Your task to perform on an android device: turn on location history Image 0: 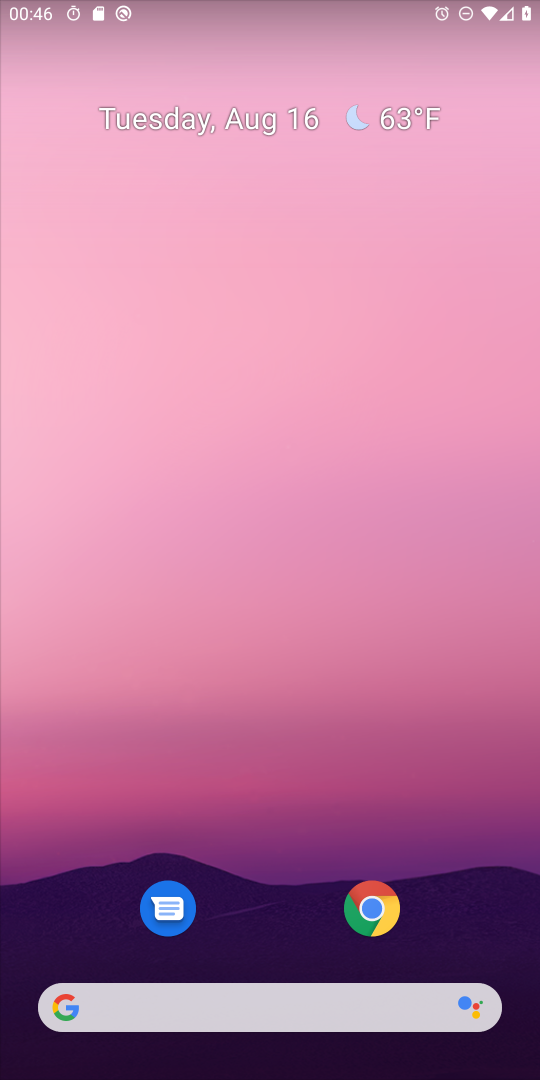
Step 0: drag from (277, 929) to (281, 110)
Your task to perform on an android device: turn on location history Image 1: 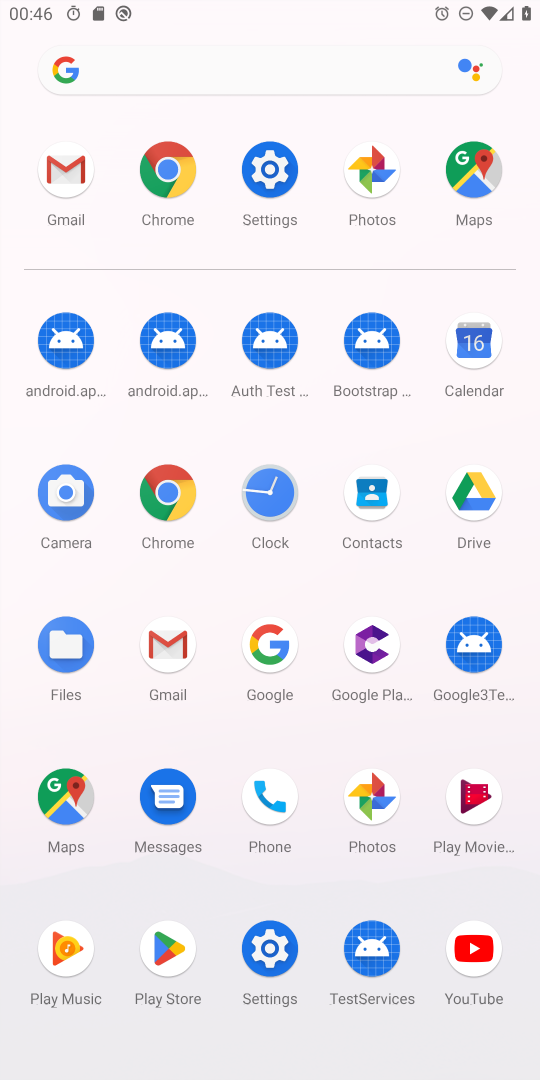
Step 1: click (287, 167)
Your task to perform on an android device: turn on location history Image 2: 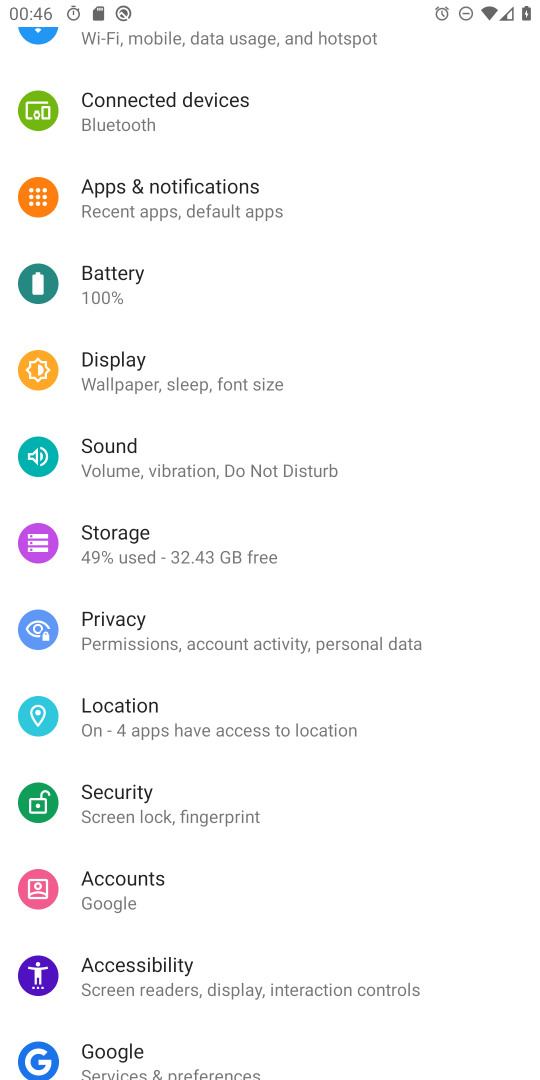
Step 2: click (143, 693)
Your task to perform on an android device: turn on location history Image 3: 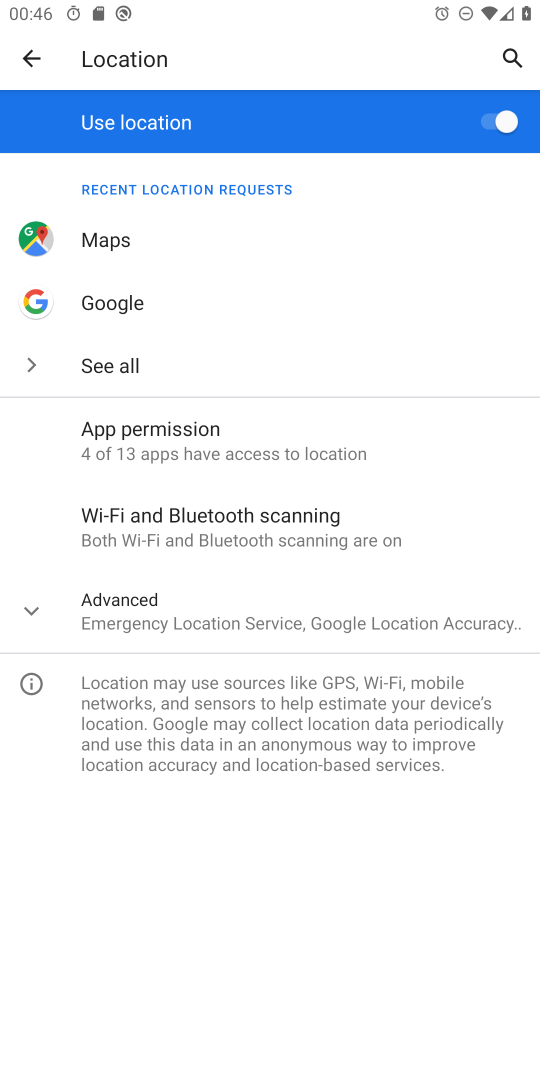
Step 3: click (140, 617)
Your task to perform on an android device: turn on location history Image 4: 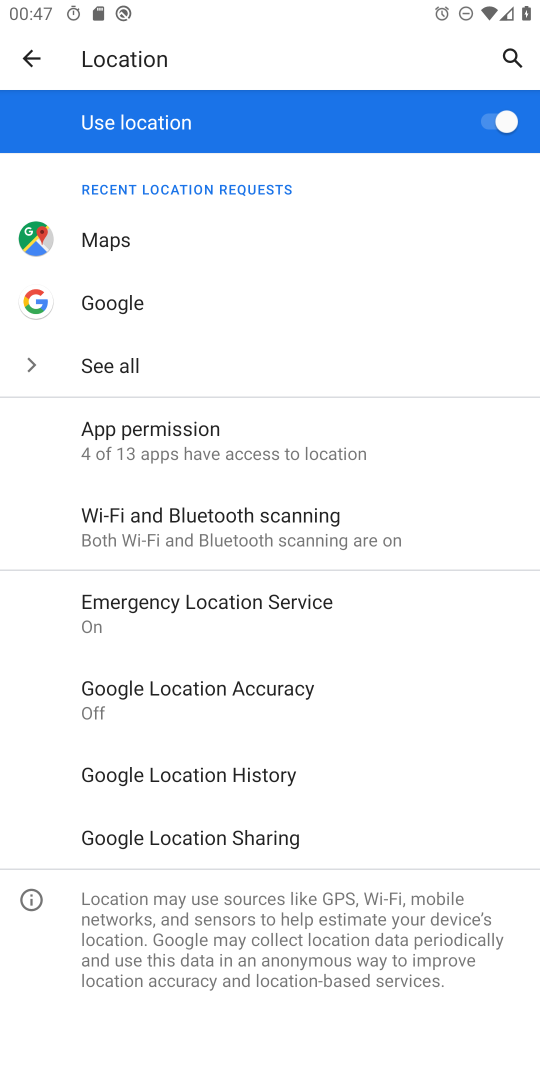
Step 4: click (228, 782)
Your task to perform on an android device: turn on location history Image 5: 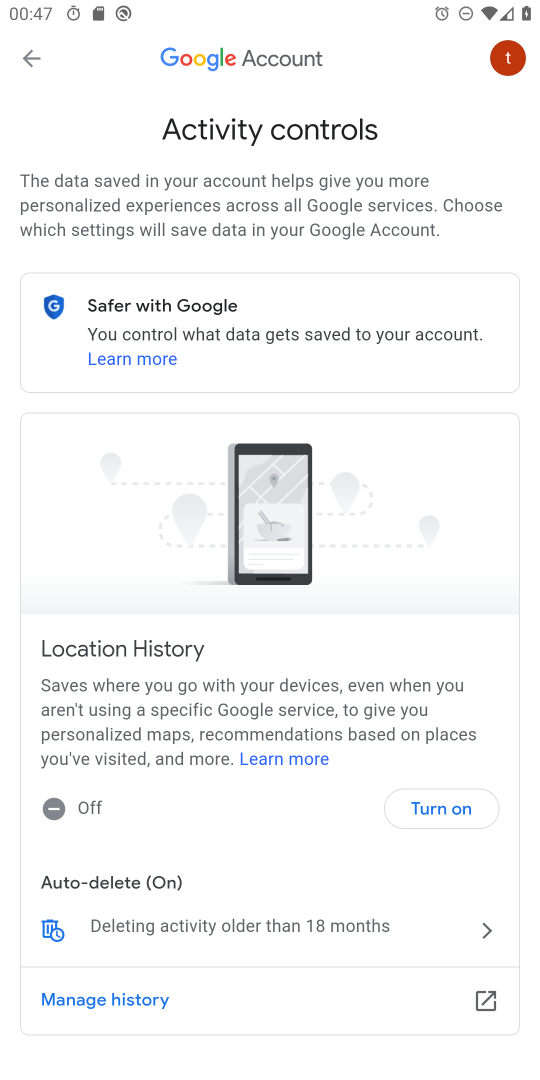
Step 5: click (458, 780)
Your task to perform on an android device: turn on location history Image 6: 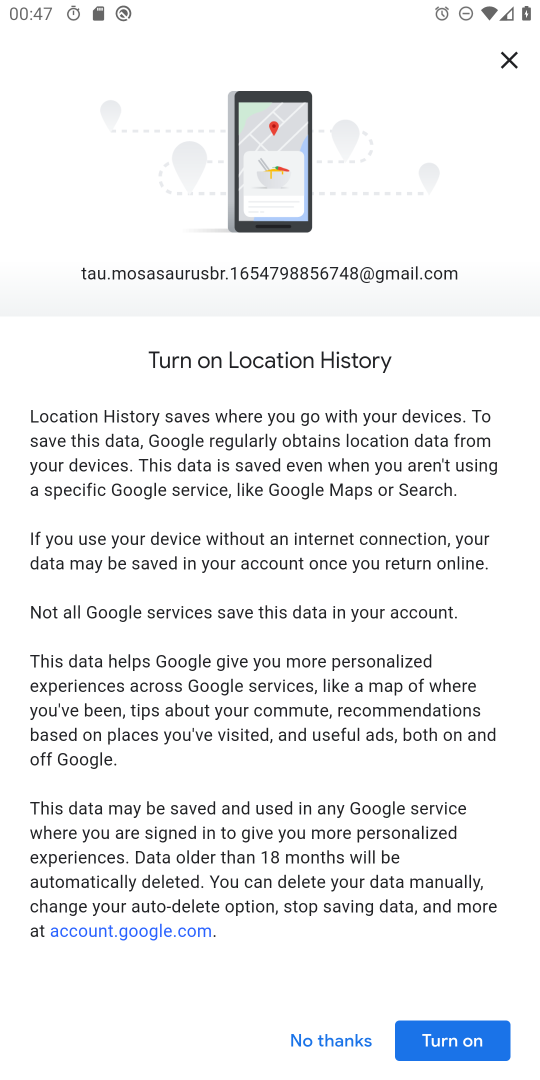
Step 6: click (439, 743)
Your task to perform on an android device: turn on location history Image 7: 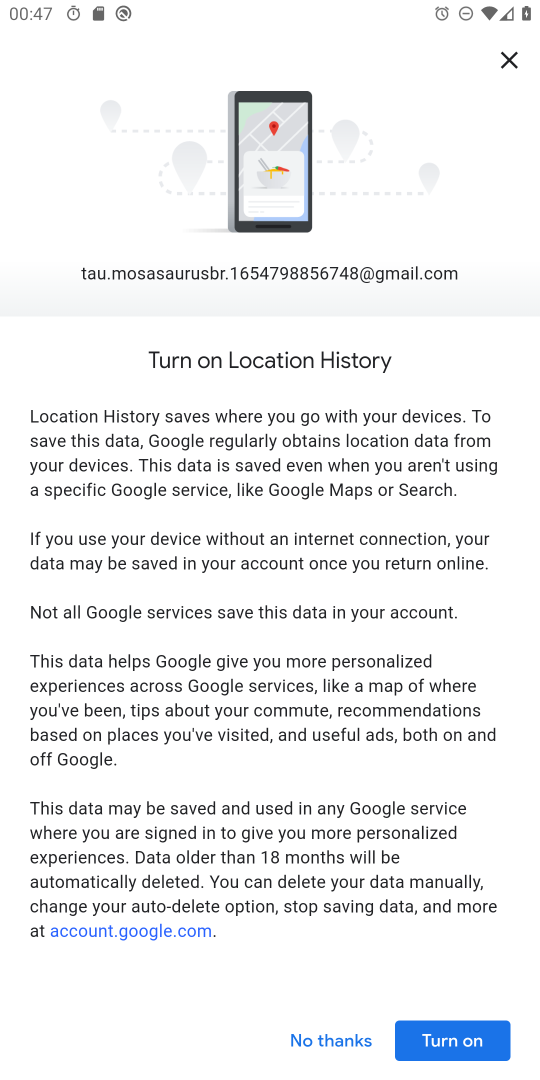
Step 7: click (470, 1039)
Your task to perform on an android device: turn on location history Image 8: 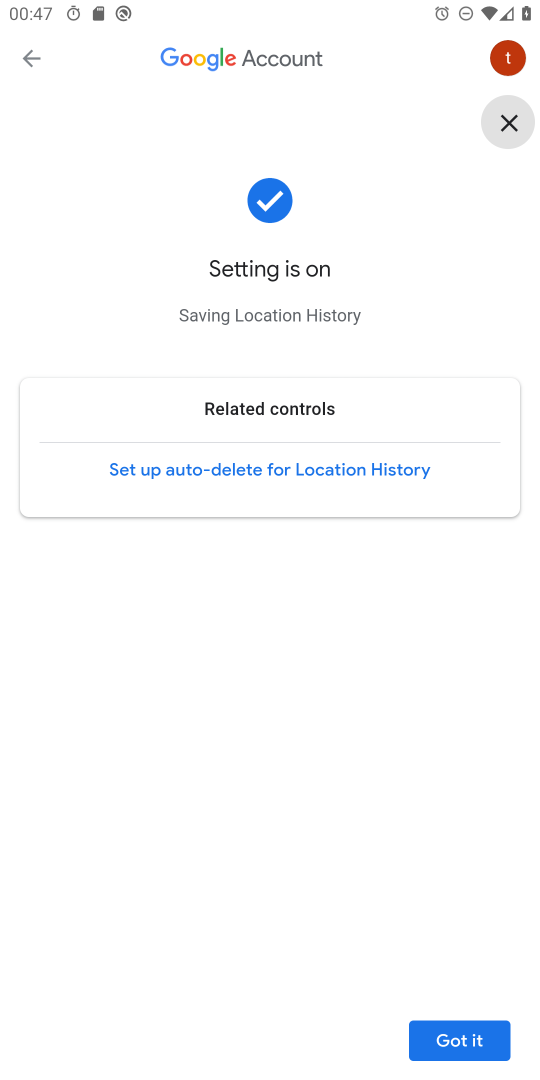
Step 8: task complete